Your task to perform on an android device: delete a single message in the gmail app Image 0: 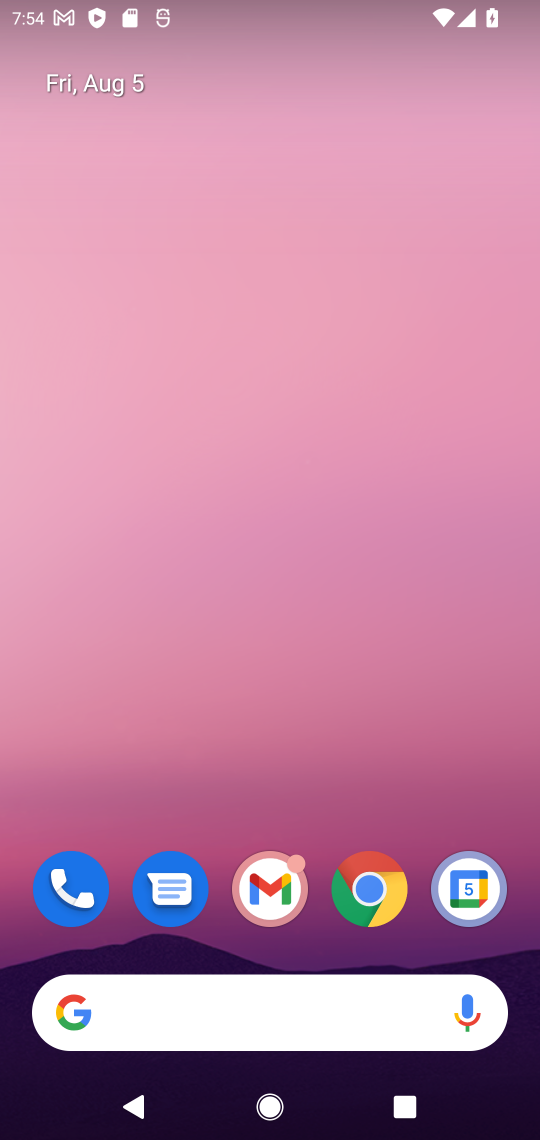
Step 0: drag from (146, 994) to (212, 368)
Your task to perform on an android device: delete a single message in the gmail app Image 1: 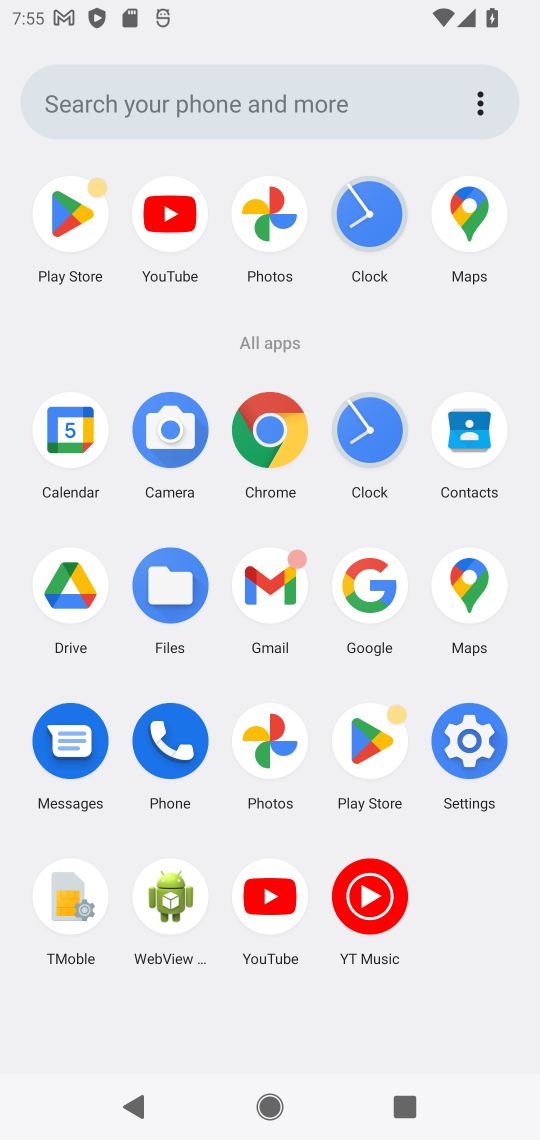
Step 1: click (273, 574)
Your task to perform on an android device: delete a single message in the gmail app Image 2: 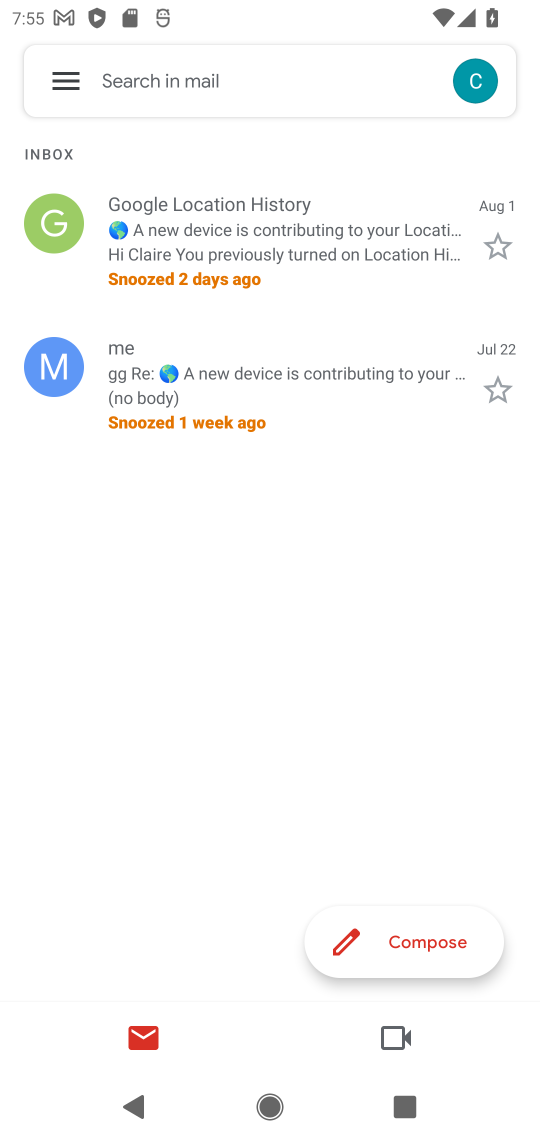
Step 2: click (197, 253)
Your task to perform on an android device: delete a single message in the gmail app Image 3: 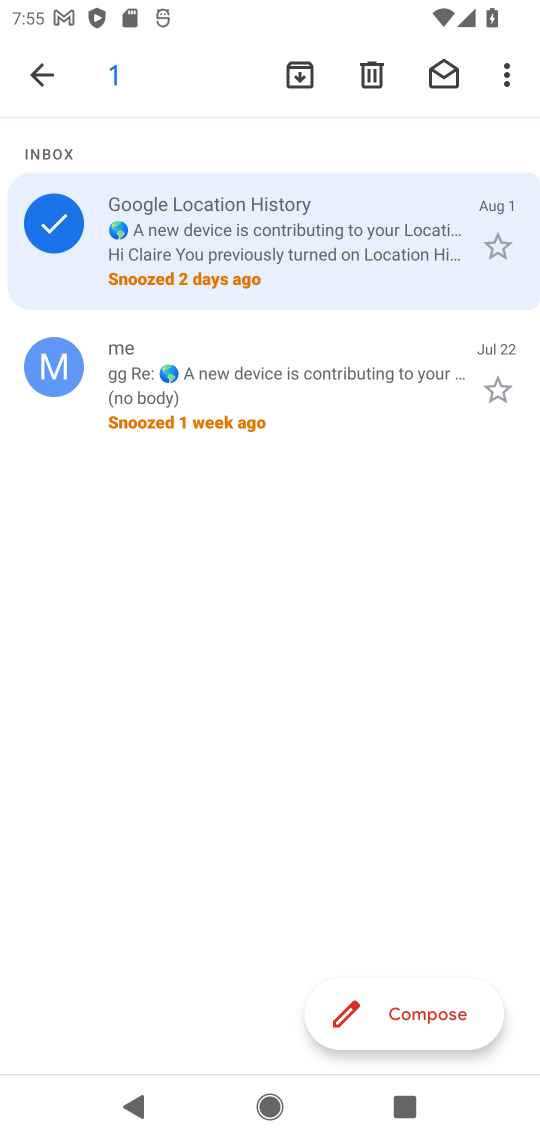
Step 3: click (381, 63)
Your task to perform on an android device: delete a single message in the gmail app Image 4: 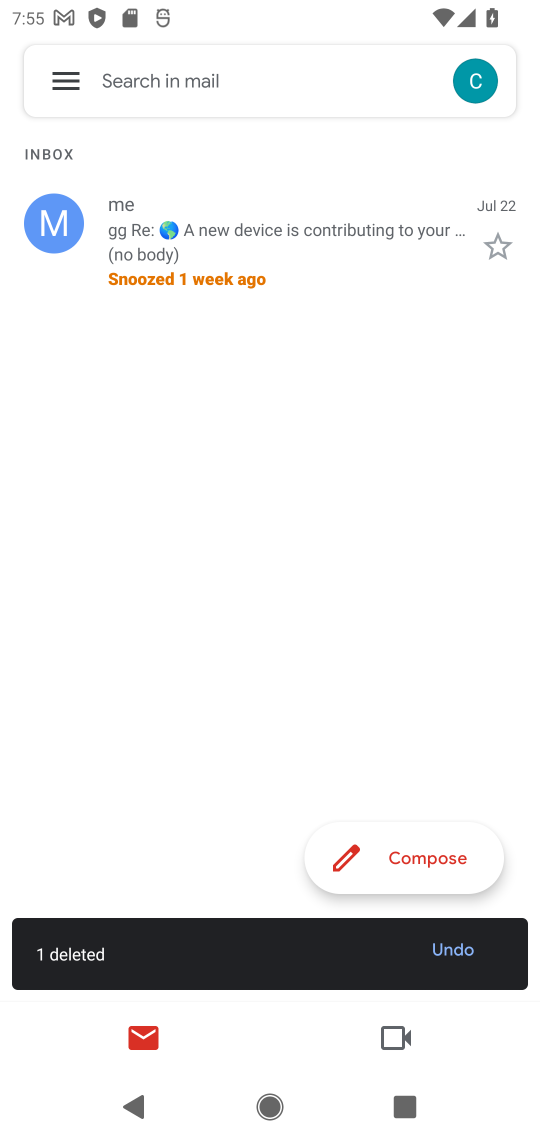
Step 4: task complete